Your task to perform on an android device: allow notifications from all sites in the chrome app Image 0: 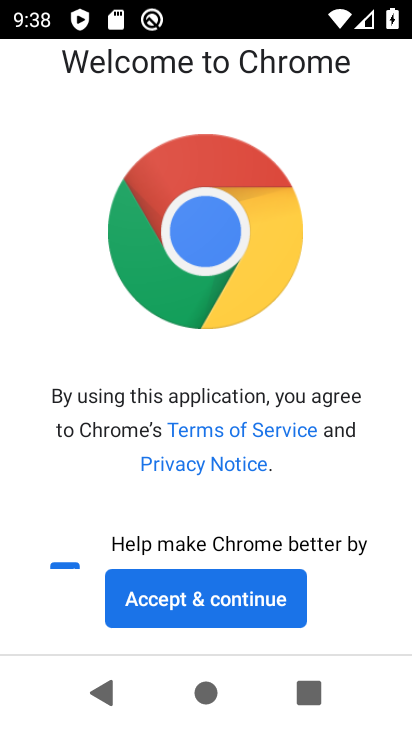
Step 0: click (261, 611)
Your task to perform on an android device: allow notifications from all sites in the chrome app Image 1: 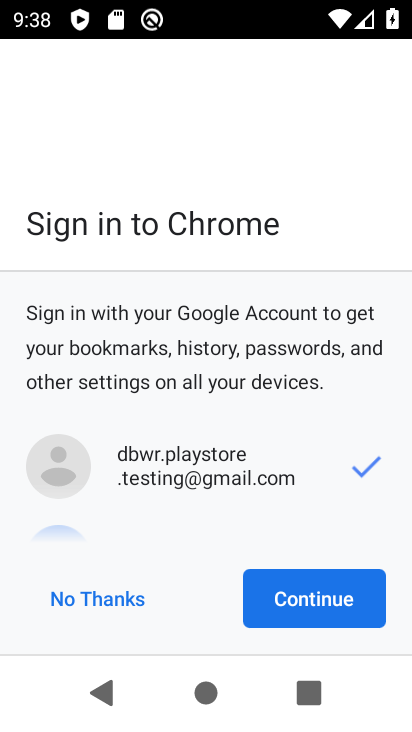
Step 1: click (341, 583)
Your task to perform on an android device: allow notifications from all sites in the chrome app Image 2: 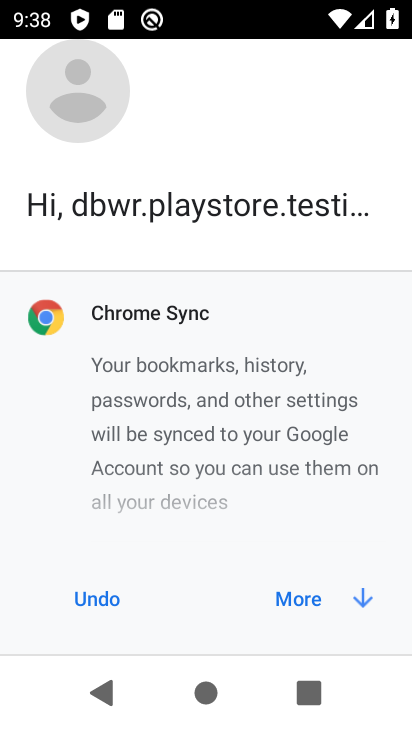
Step 2: click (338, 588)
Your task to perform on an android device: allow notifications from all sites in the chrome app Image 3: 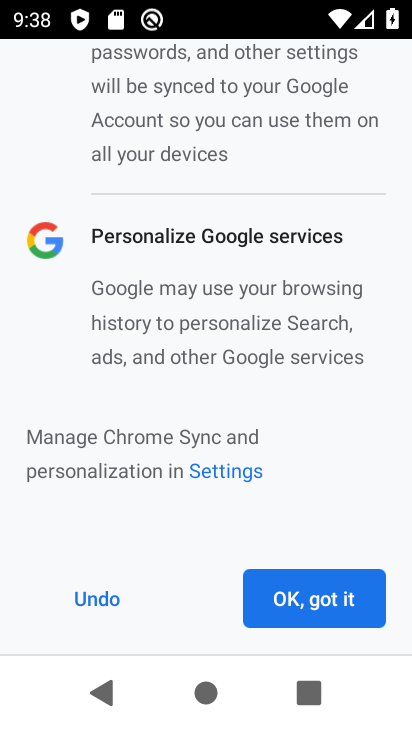
Step 3: click (307, 608)
Your task to perform on an android device: allow notifications from all sites in the chrome app Image 4: 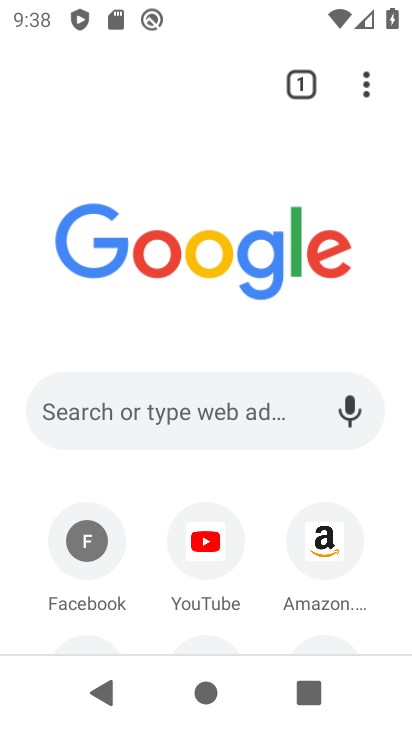
Step 4: drag from (381, 99) to (215, 522)
Your task to perform on an android device: allow notifications from all sites in the chrome app Image 5: 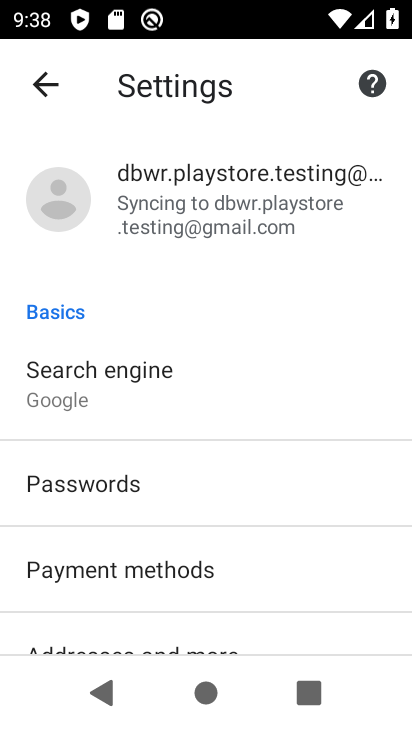
Step 5: drag from (217, 632) to (335, 96)
Your task to perform on an android device: allow notifications from all sites in the chrome app Image 6: 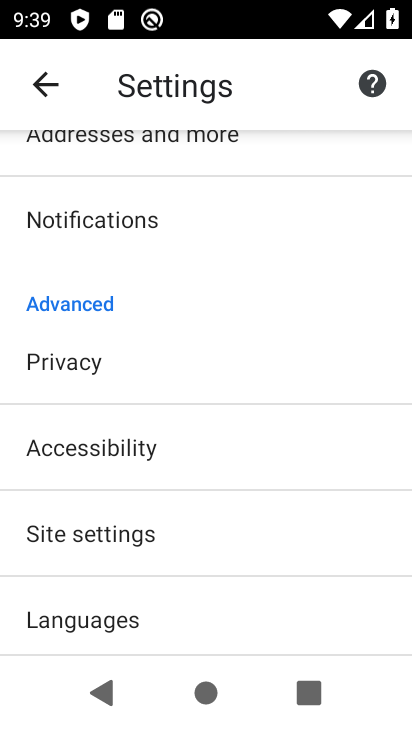
Step 6: click (152, 538)
Your task to perform on an android device: allow notifications from all sites in the chrome app Image 7: 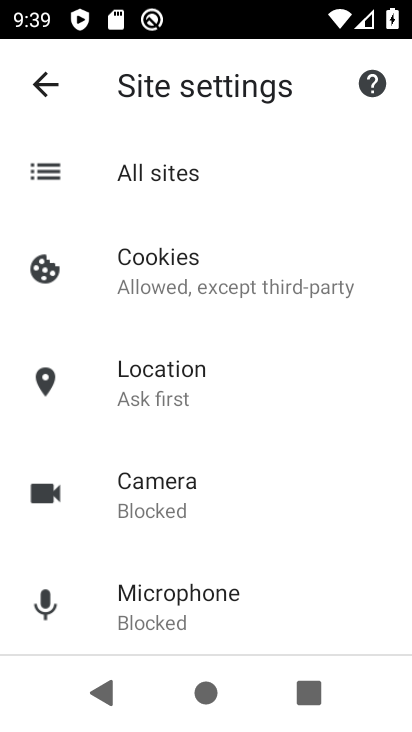
Step 7: drag from (183, 603) to (286, 237)
Your task to perform on an android device: allow notifications from all sites in the chrome app Image 8: 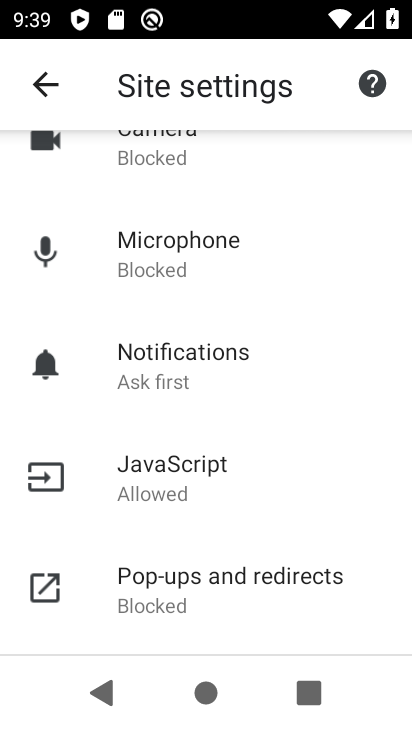
Step 8: drag from (189, 613) to (213, 455)
Your task to perform on an android device: allow notifications from all sites in the chrome app Image 9: 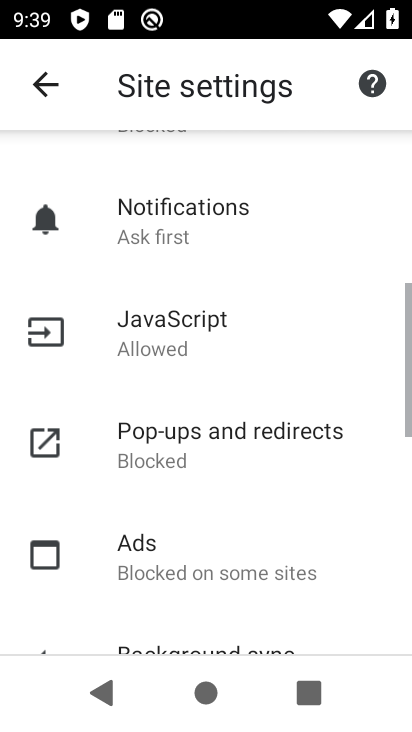
Step 9: click (230, 236)
Your task to perform on an android device: allow notifications from all sites in the chrome app Image 10: 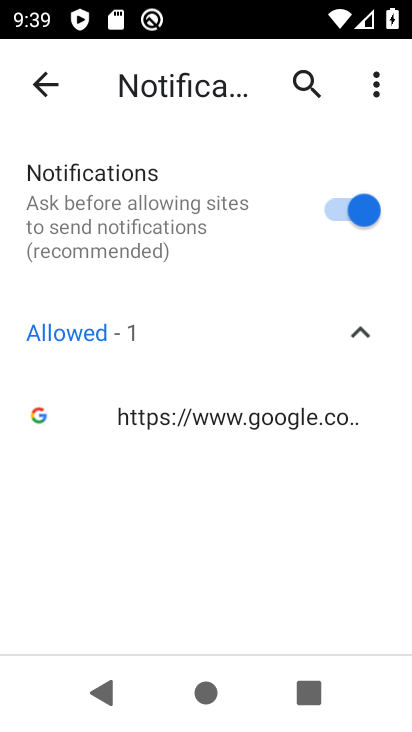
Step 10: click (276, 424)
Your task to perform on an android device: allow notifications from all sites in the chrome app Image 11: 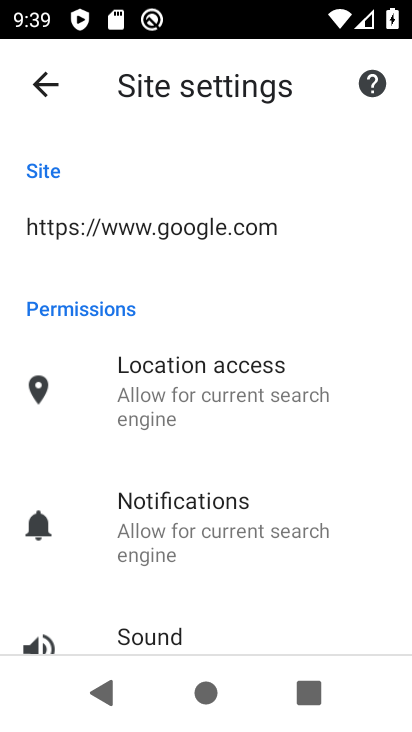
Step 11: click (254, 519)
Your task to perform on an android device: allow notifications from all sites in the chrome app Image 12: 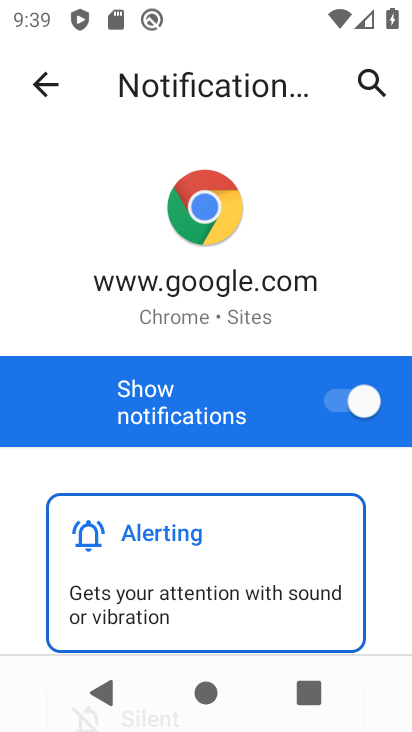
Step 12: task complete